Your task to perform on an android device: Show me the alarms in the clock app Image 0: 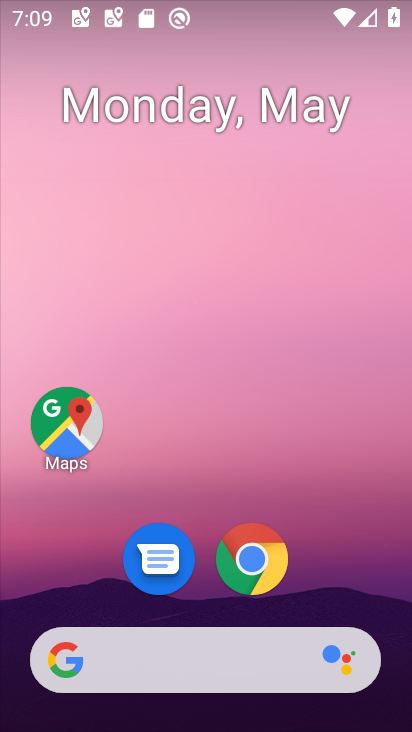
Step 0: drag from (397, 647) to (358, 62)
Your task to perform on an android device: Show me the alarms in the clock app Image 1: 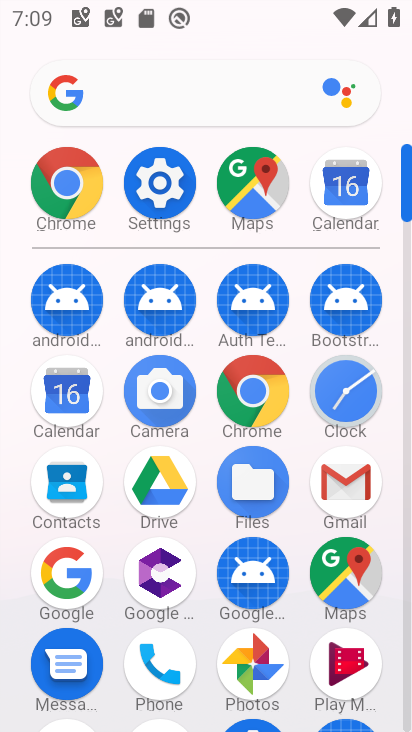
Step 1: click (349, 388)
Your task to perform on an android device: Show me the alarms in the clock app Image 2: 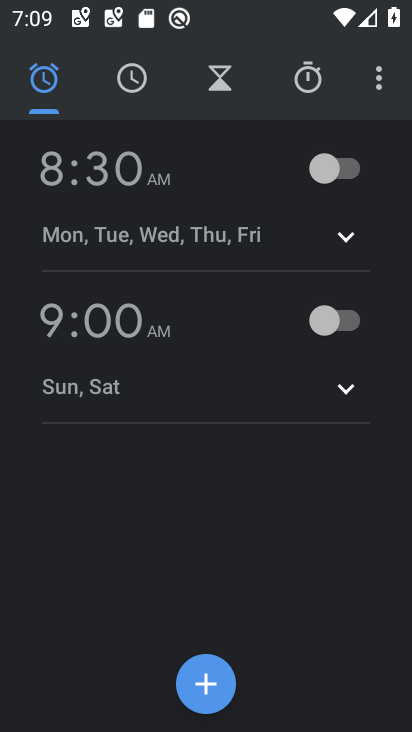
Step 2: task complete